Your task to perform on an android device: What's the weather going to be tomorrow? Image 0: 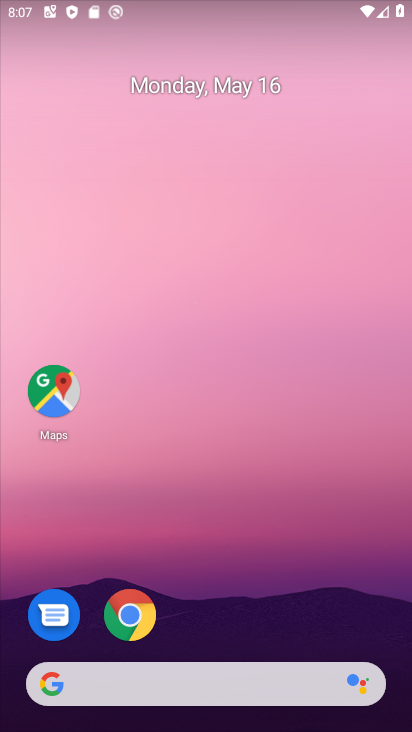
Step 0: click (189, 674)
Your task to perform on an android device: What's the weather going to be tomorrow? Image 1: 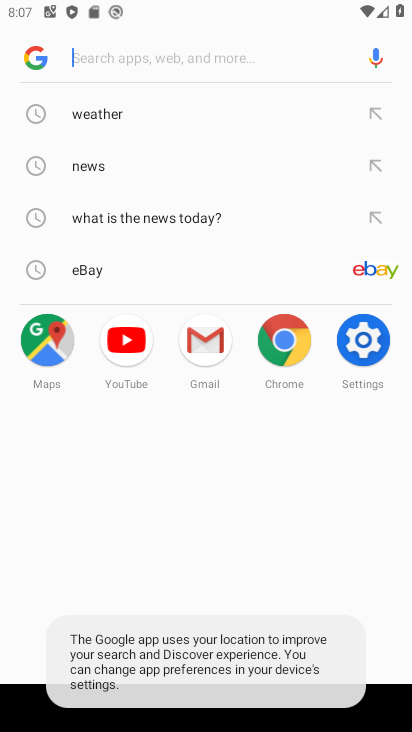
Step 1: click (107, 125)
Your task to perform on an android device: What's the weather going to be tomorrow? Image 2: 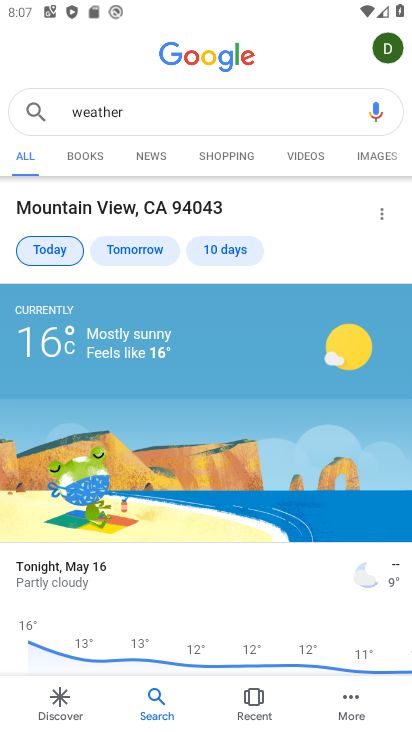
Step 2: drag from (127, 618) to (178, 171)
Your task to perform on an android device: What's the weather going to be tomorrow? Image 3: 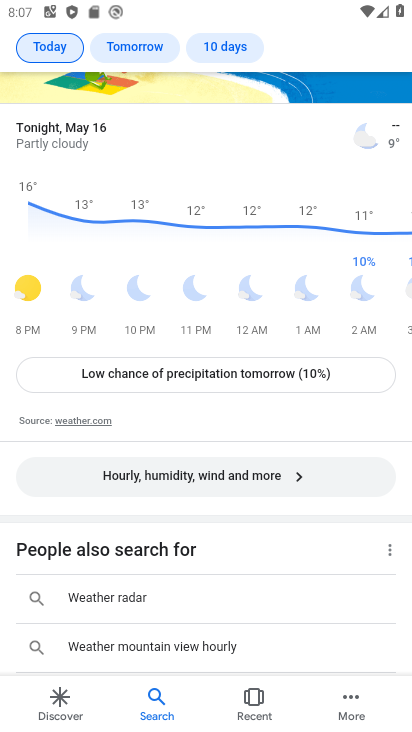
Step 3: click (90, 423)
Your task to perform on an android device: What's the weather going to be tomorrow? Image 4: 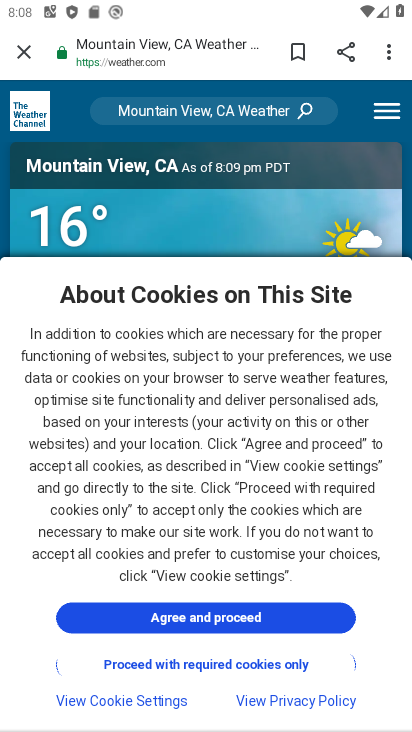
Step 4: click (210, 620)
Your task to perform on an android device: What's the weather going to be tomorrow? Image 5: 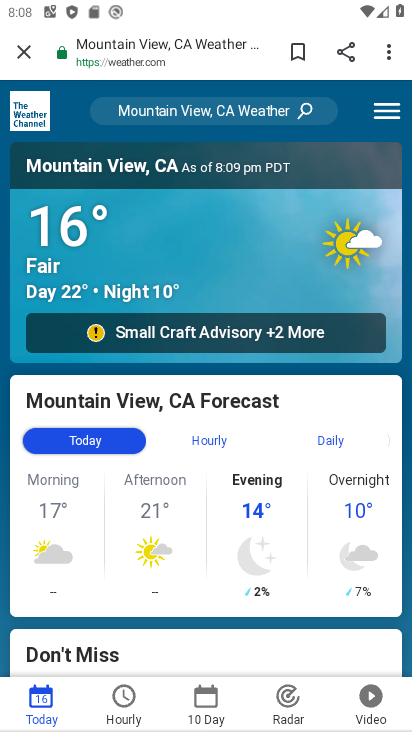
Step 5: click (203, 697)
Your task to perform on an android device: What's the weather going to be tomorrow? Image 6: 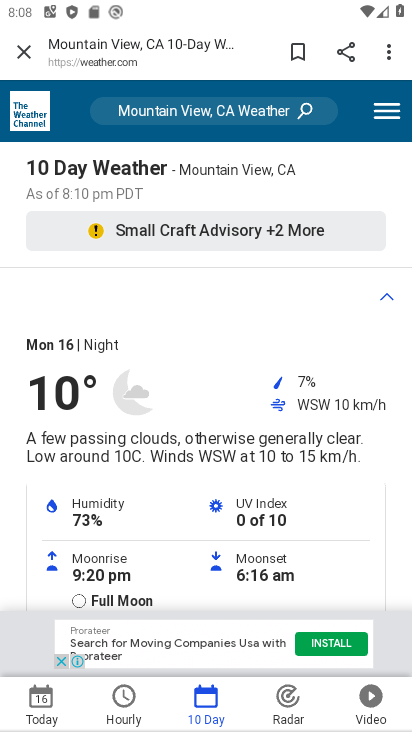
Step 6: drag from (188, 491) to (202, 41)
Your task to perform on an android device: What's the weather going to be tomorrow? Image 7: 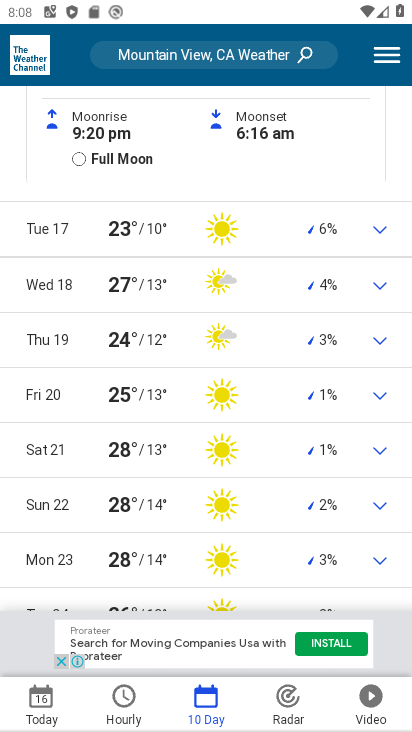
Step 7: click (105, 220)
Your task to perform on an android device: What's the weather going to be tomorrow? Image 8: 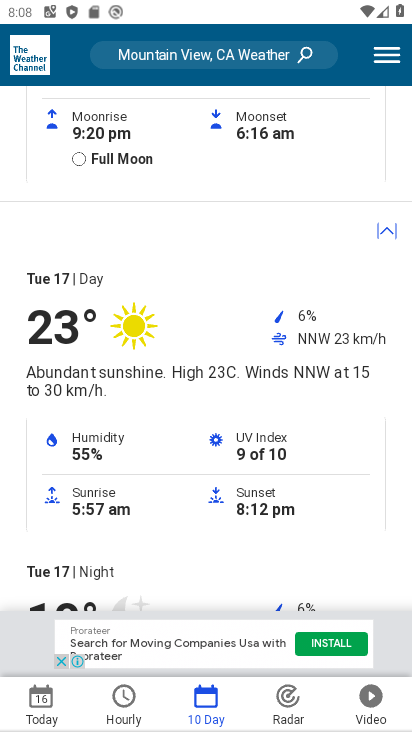
Step 8: task complete